Your task to perform on an android device: clear history in the chrome app Image 0: 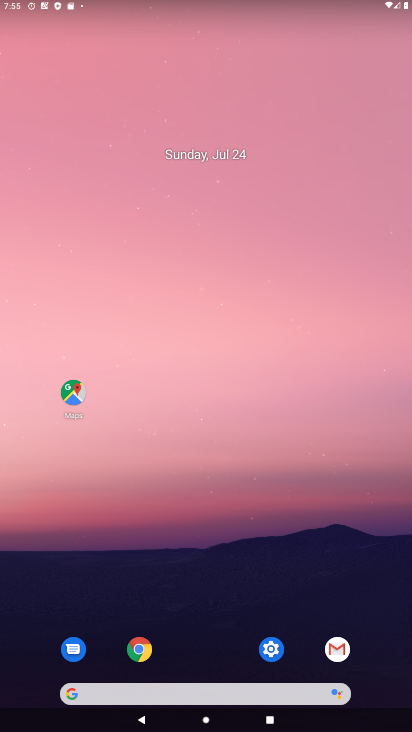
Step 0: click (138, 647)
Your task to perform on an android device: clear history in the chrome app Image 1: 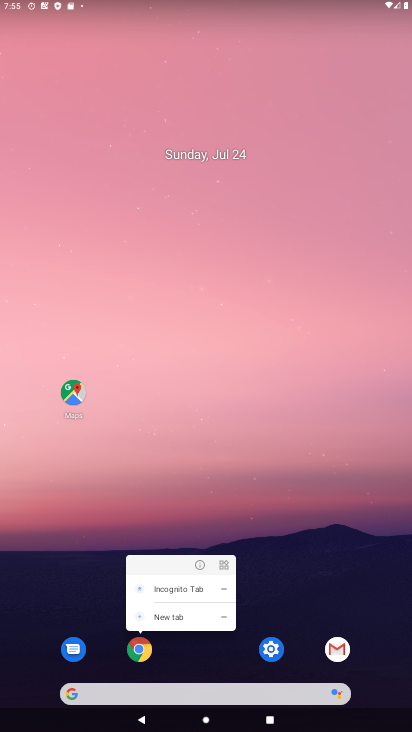
Step 1: click (138, 653)
Your task to perform on an android device: clear history in the chrome app Image 2: 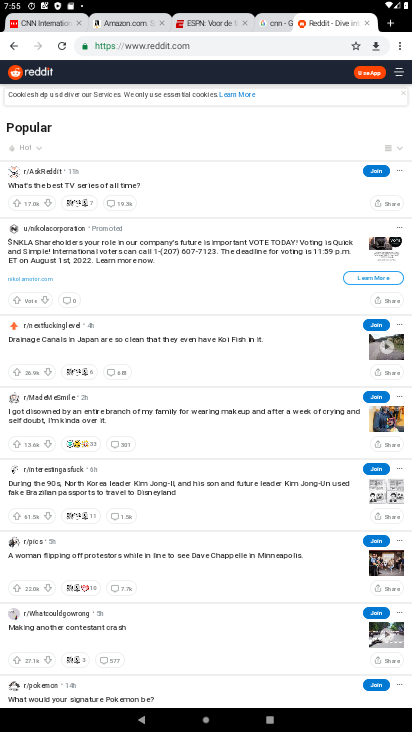
Step 2: click (394, 48)
Your task to perform on an android device: clear history in the chrome app Image 3: 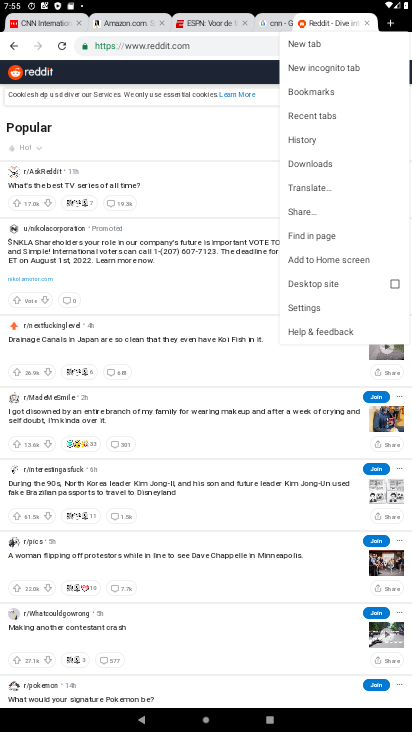
Step 3: click (302, 307)
Your task to perform on an android device: clear history in the chrome app Image 4: 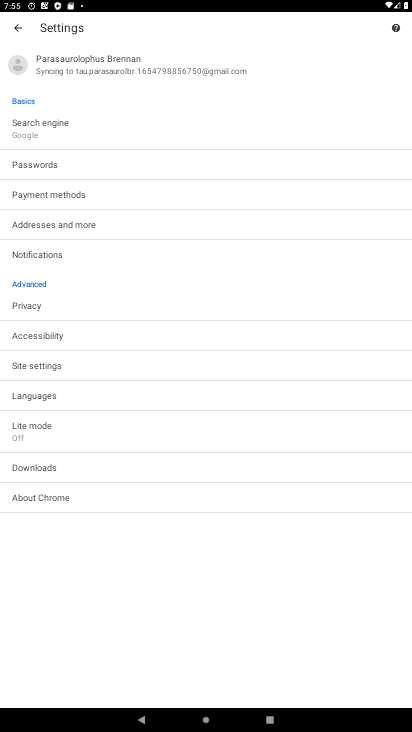
Step 4: click (22, 305)
Your task to perform on an android device: clear history in the chrome app Image 5: 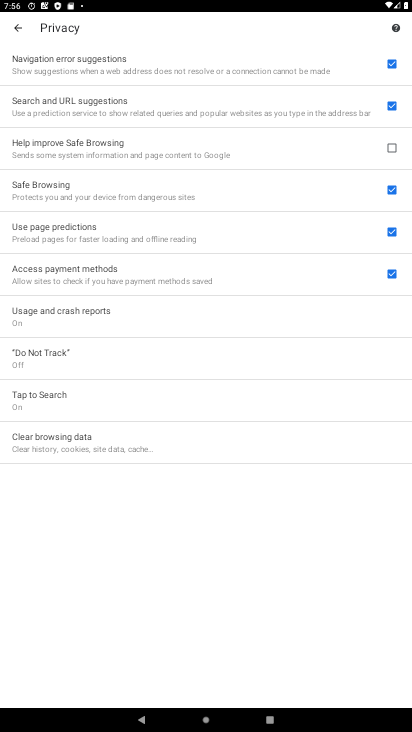
Step 5: click (48, 440)
Your task to perform on an android device: clear history in the chrome app Image 6: 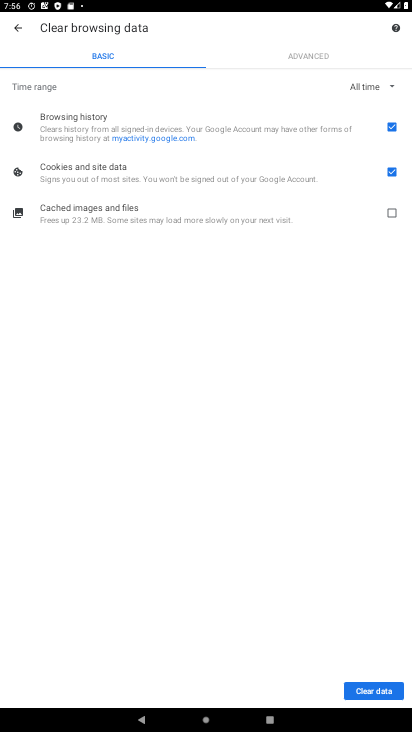
Step 6: click (379, 692)
Your task to perform on an android device: clear history in the chrome app Image 7: 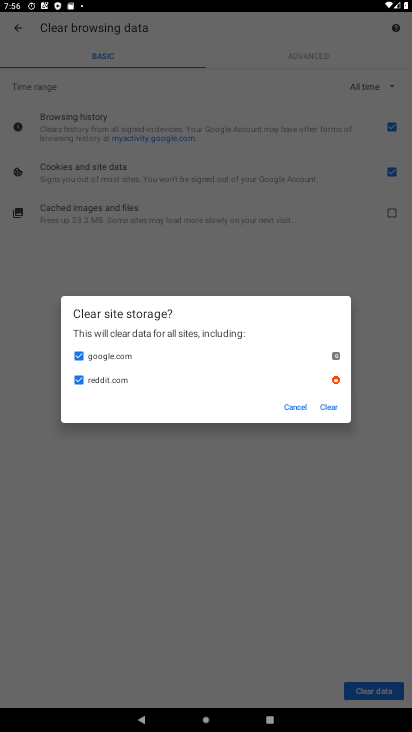
Step 7: task complete